Your task to perform on an android device: Do I have any events today? Image 0: 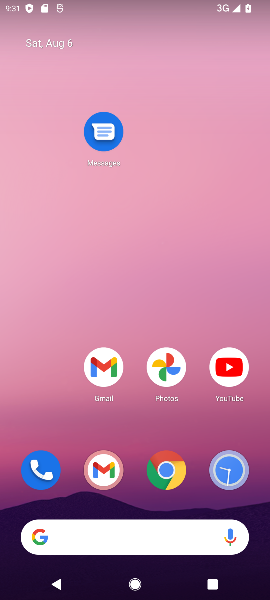
Step 0: drag from (130, 504) to (109, 75)
Your task to perform on an android device: Do I have any events today? Image 1: 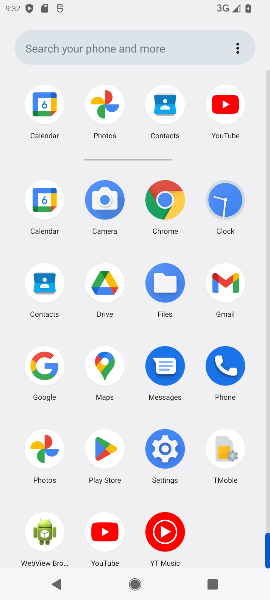
Step 1: click (48, 198)
Your task to perform on an android device: Do I have any events today? Image 2: 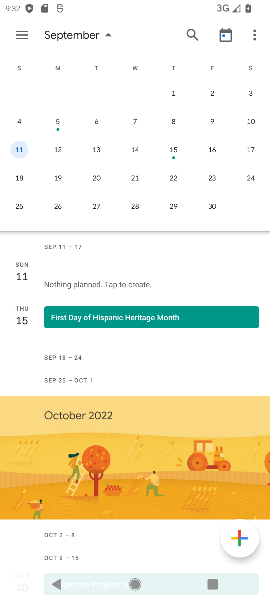
Step 2: drag from (52, 121) to (268, 96)
Your task to perform on an android device: Do I have any events today? Image 3: 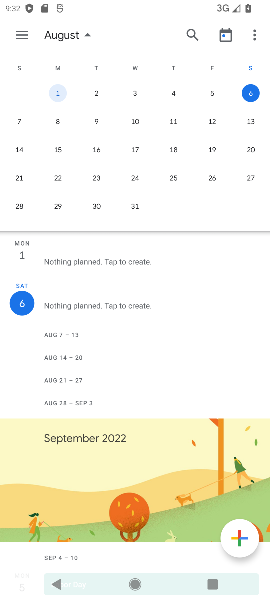
Step 3: click (252, 97)
Your task to perform on an android device: Do I have any events today? Image 4: 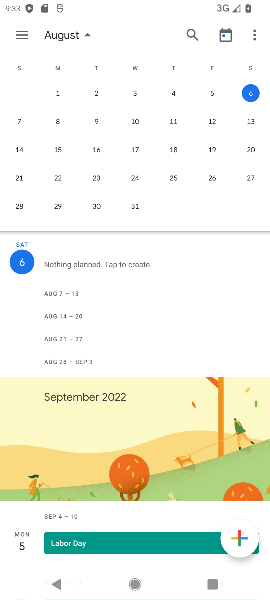
Step 4: task complete